Your task to perform on an android device: Is it going to rain this weekend? Image 0: 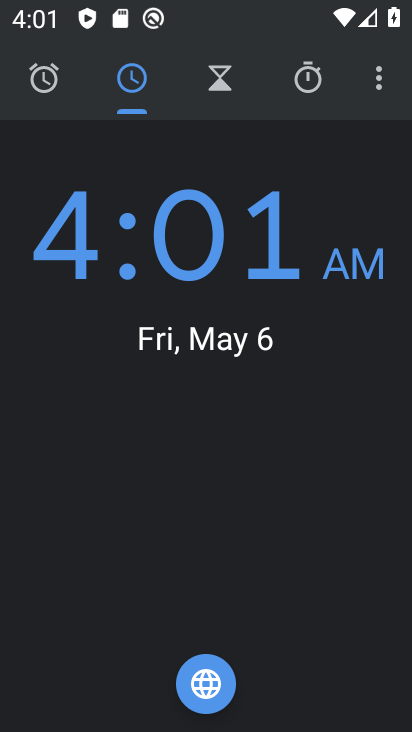
Step 0: press back button
Your task to perform on an android device: Is it going to rain this weekend? Image 1: 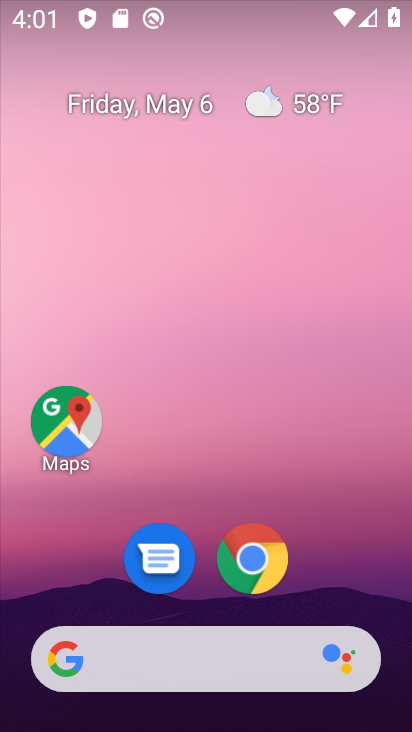
Step 1: click (255, 551)
Your task to perform on an android device: Is it going to rain this weekend? Image 2: 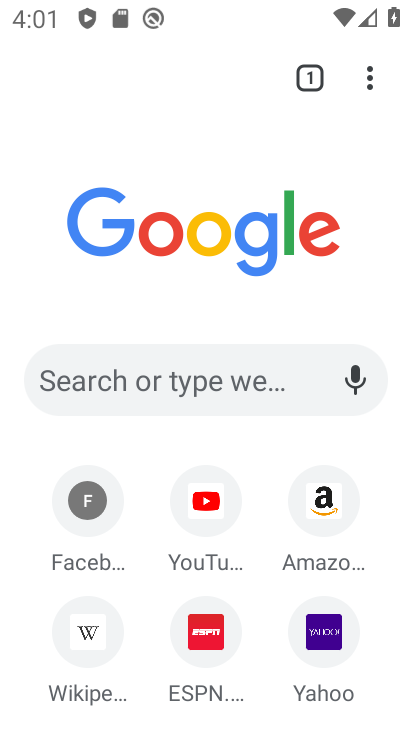
Step 2: click (304, 389)
Your task to perform on an android device: Is it going to rain this weekend? Image 3: 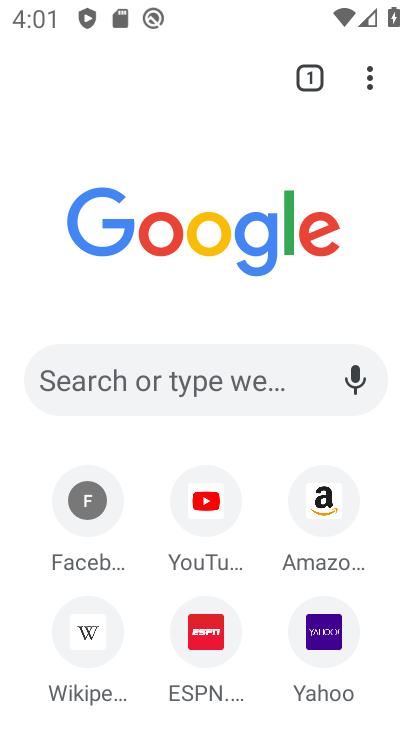
Step 3: click (280, 339)
Your task to perform on an android device: Is it going to rain this weekend? Image 4: 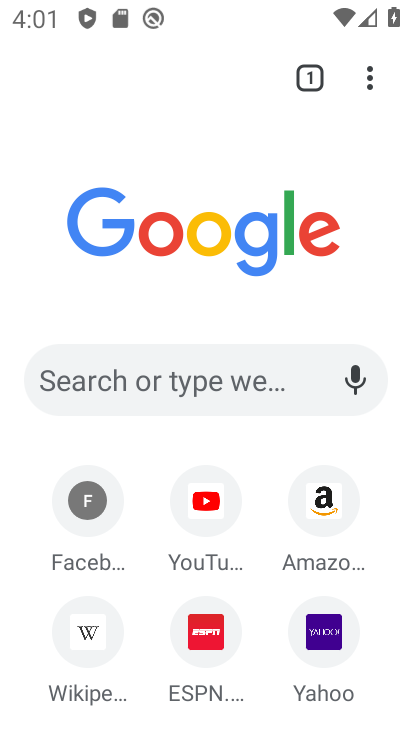
Step 4: click (261, 365)
Your task to perform on an android device: Is it going to rain this weekend? Image 5: 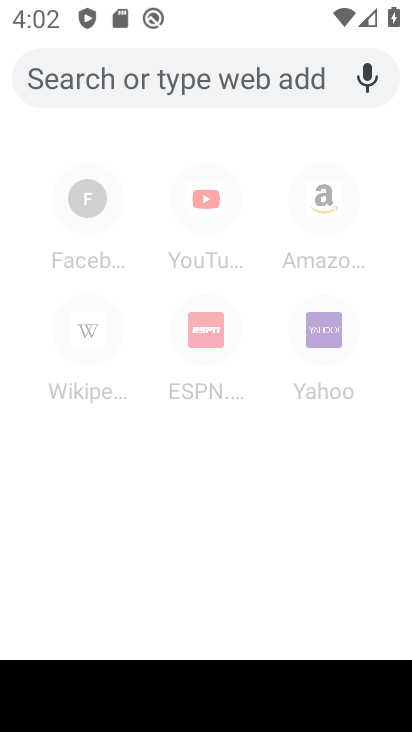
Step 5: type "rain this weekend"
Your task to perform on an android device: Is it going to rain this weekend? Image 6: 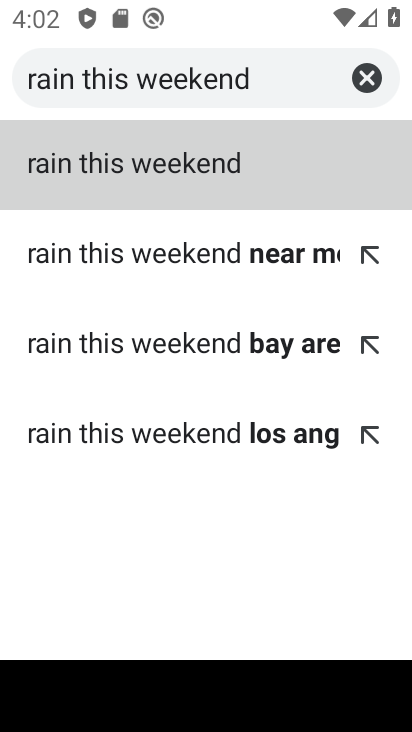
Step 6: click (203, 150)
Your task to perform on an android device: Is it going to rain this weekend? Image 7: 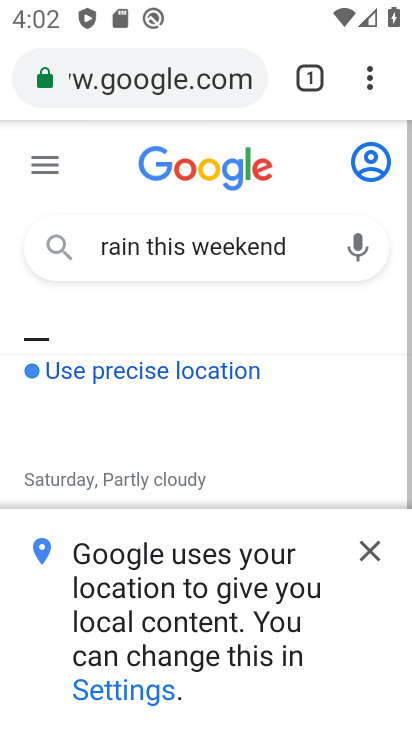
Step 7: click (359, 537)
Your task to perform on an android device: Is it going to rain this weekend? Image 8: 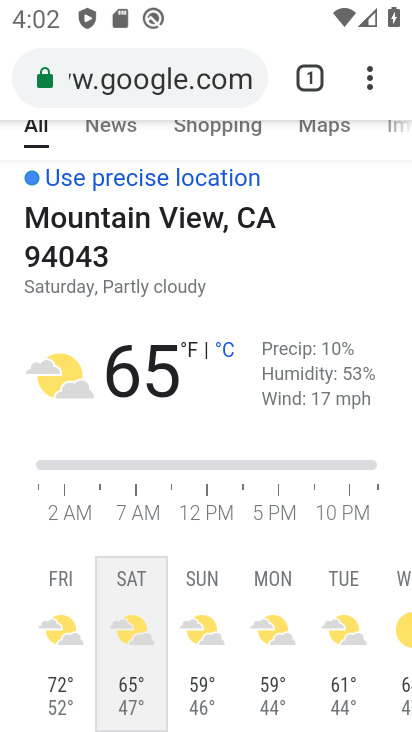
Step 8: task complete